Your task to perform on an android device: toggle pop-ups in chrome Image 0: 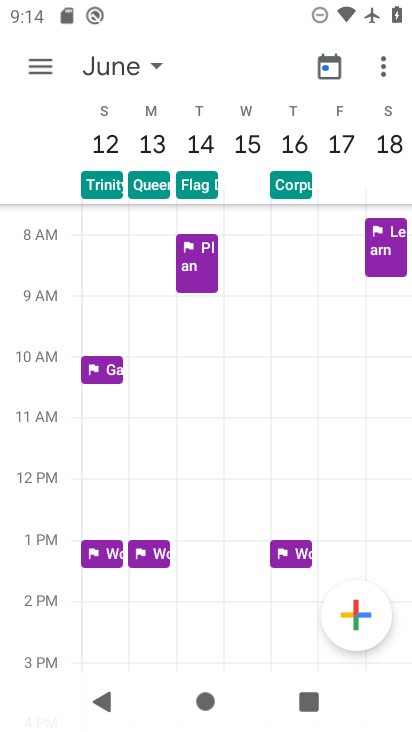
Step 0: press home button
Your task to perform on an android device: toggle pop-ups in chrome Image 1: 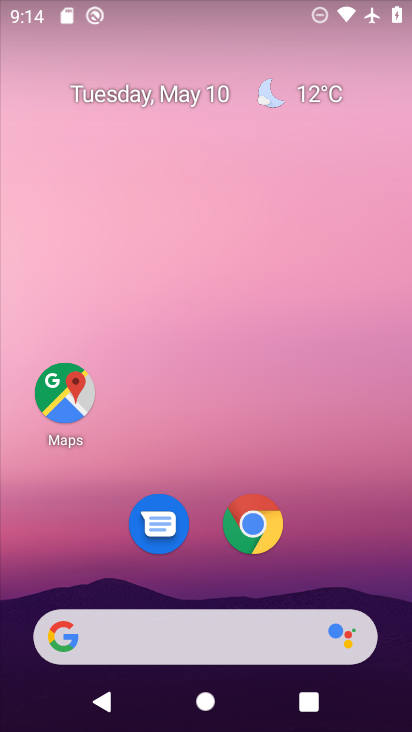
Step 1: click (254, 522)
Your task to perform on an android device: toggle pop-ups in chrome Image 2: 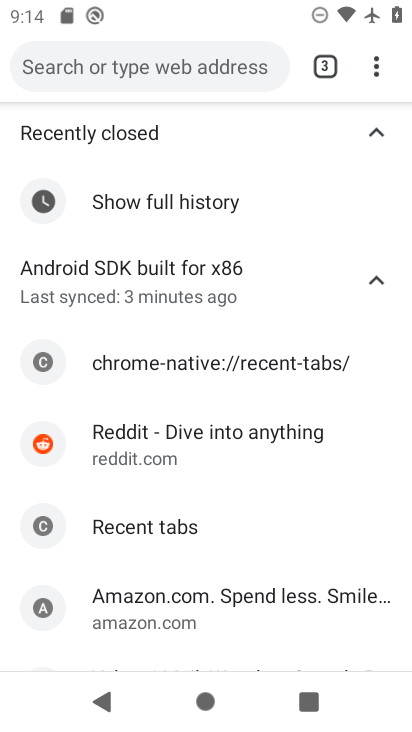
Step 2: click (376, 63)
Your task to perform on an android device: toggle pop-ups in chrome Image 3: 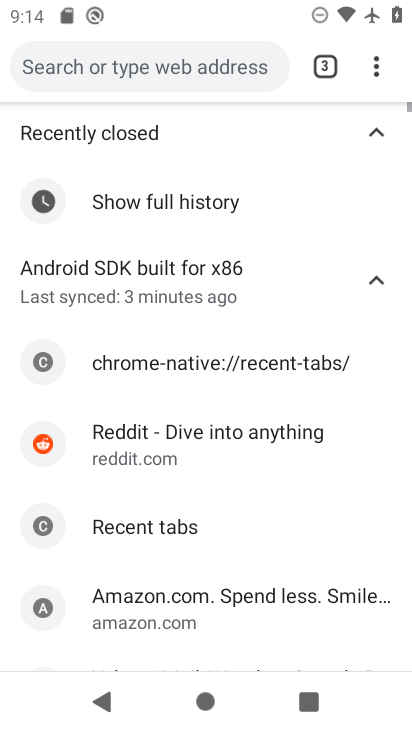
Step 3: click (376, 64)
Your task to perform on an android device: toggle pop-ups in chrome Image 4: 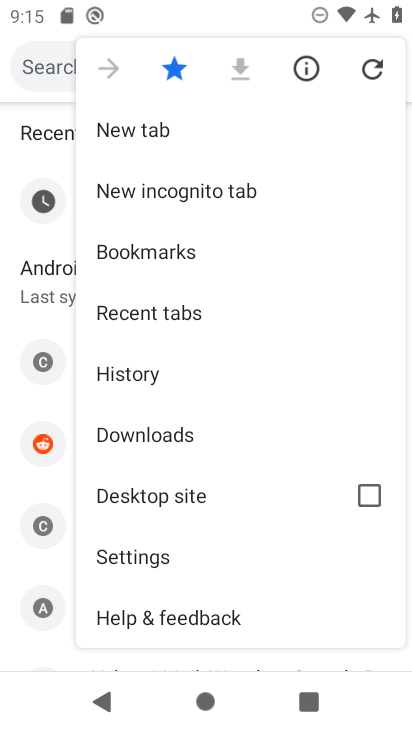
Step 4: click (197, 547)
Your task to perform on an android device: toggle pop-ups in chrome Image 5: 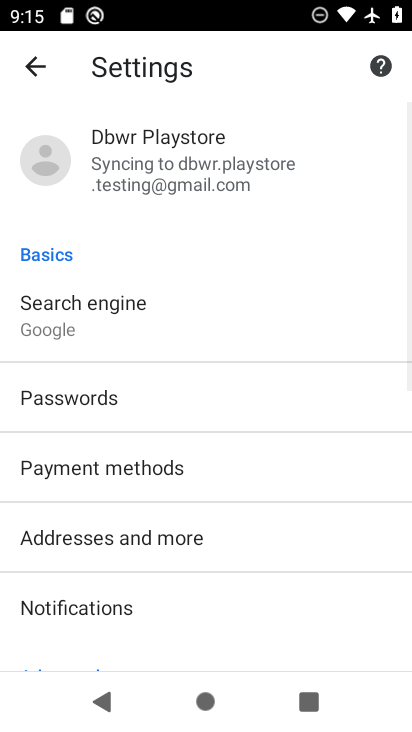
Step 5: drag from (232, 554) to (222, 176)
Your task to perform on an android device: toggle pop-ups in chrome Image 6: 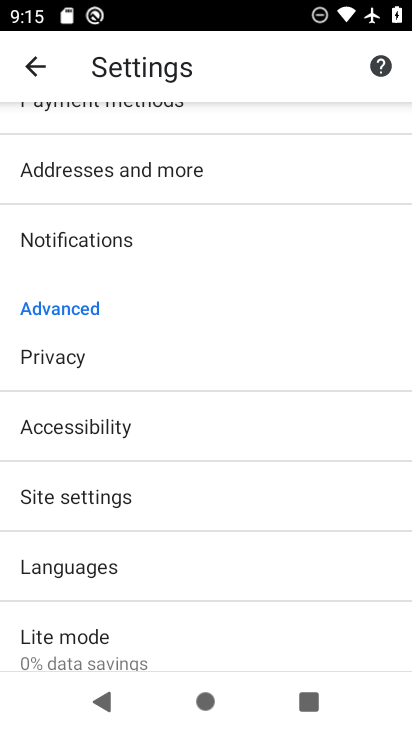
Step 6: click (234, 503)
Your task to perform on an android device: toggle pop-ups in chrome Image 7: 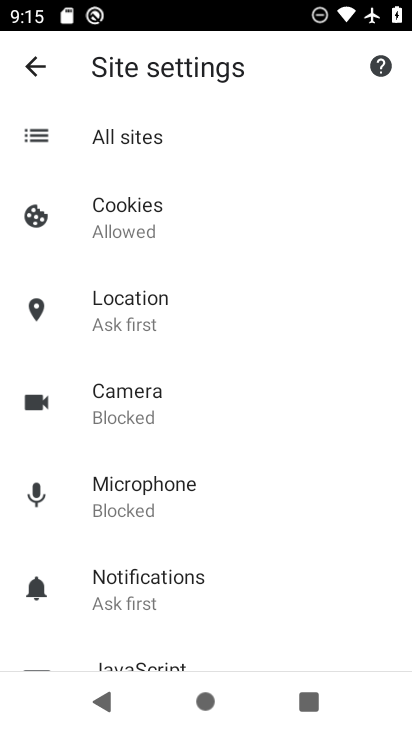
Step 7: drag from (268, 536) to (225, 187)
Your task to perform on an android device: toggle pop-ups in chrome Image 8: 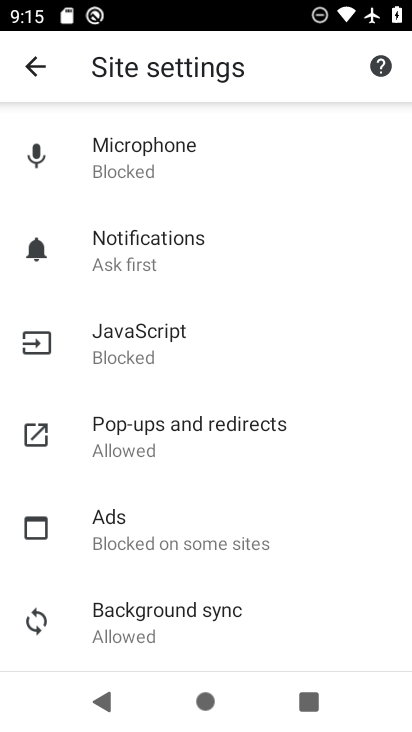
Step 8: click (193, 435)
Your task to perform on an android device: toggle pop-ups in chrome Image 9: 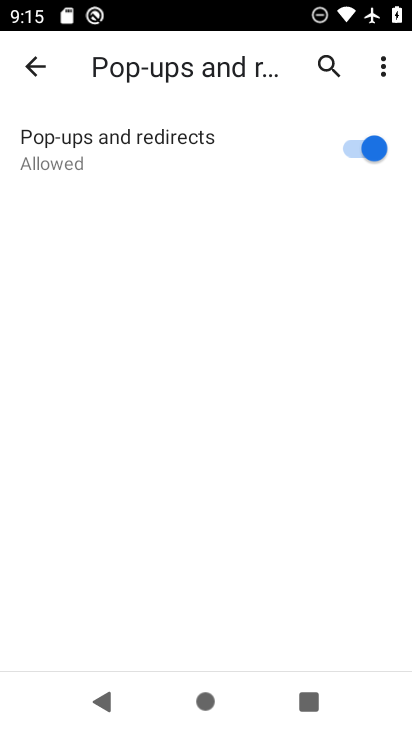
Step 9: click (343, 124)
Your task to perform on an android device: toggle pop-ups in chrome Image 10: 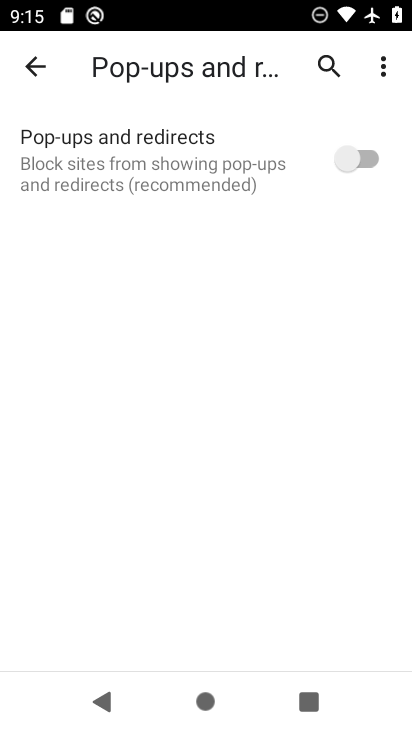
Step 10: task complete